Your task to perform on an android device: Go to Yahoo.com Image 0: 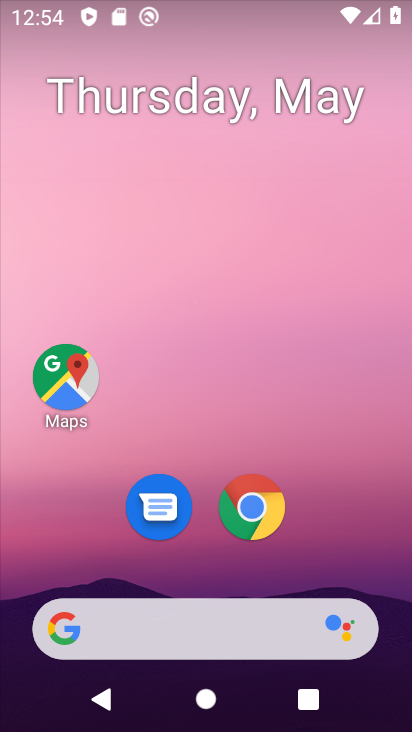
Step 0: drag from (229, 558) to (296, 4)
Your task to perform on an android device: Go to Yahoo.com Image 1: 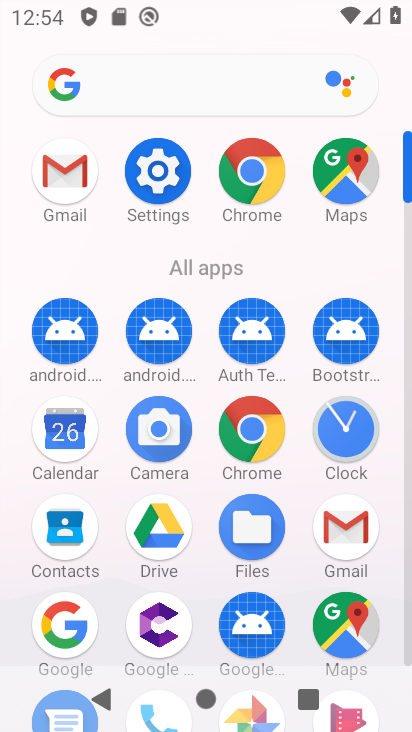
Step 1: click (251, 437)
Your task to perform on an android device: Go to Yahoo.com Image 2: 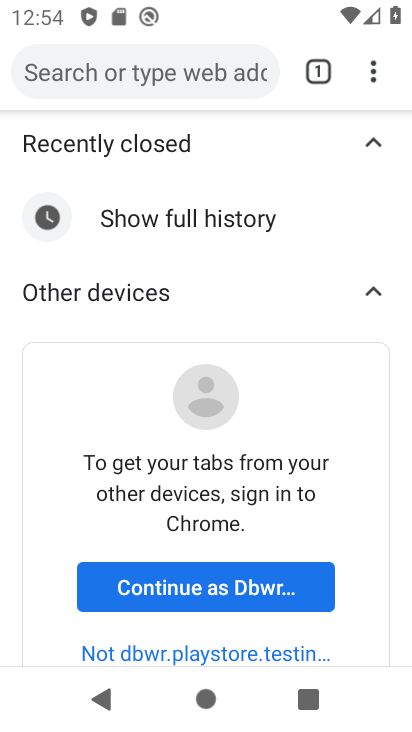
Step 2: click (169, 91)
Your task to perform on an android device: Go to Yahoo.com Image 3: 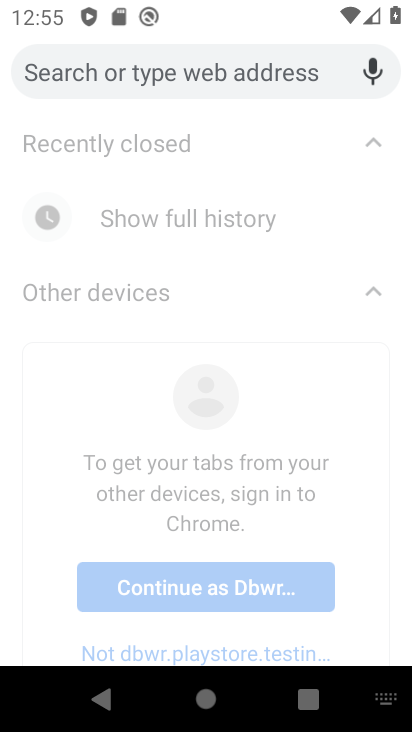
Step 3: type "yahoo.com"
Your task to perform on an android device: Go to Yahoo.com Image 4: 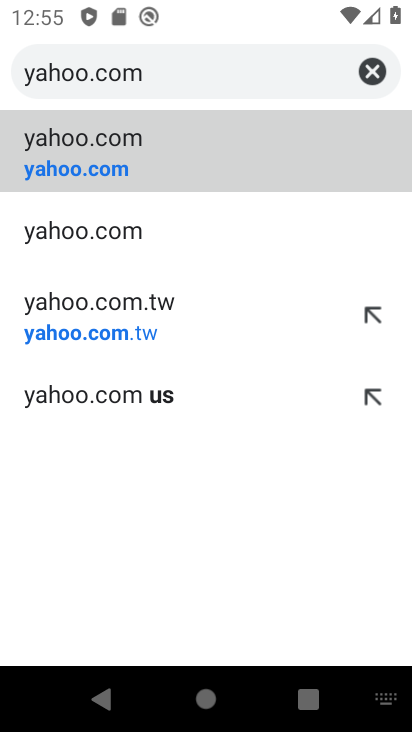
Step 4: click (219, 173)
Your task to perform on an android device: Go to Yahoo.com Image 5: 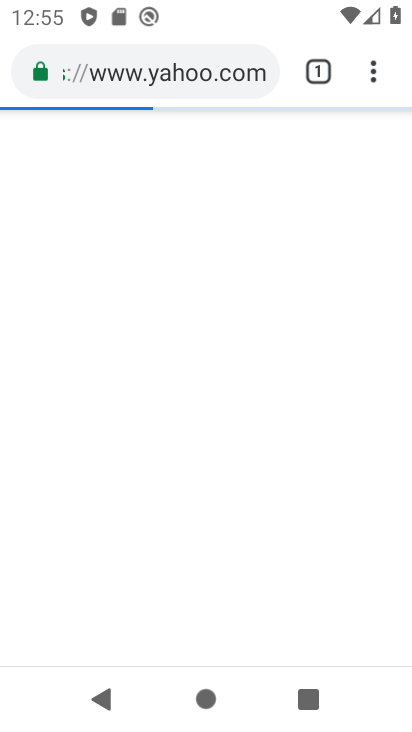
Step 5: task complete